Your task to perform on an android device: delete a single message in the gmail app Image 0: 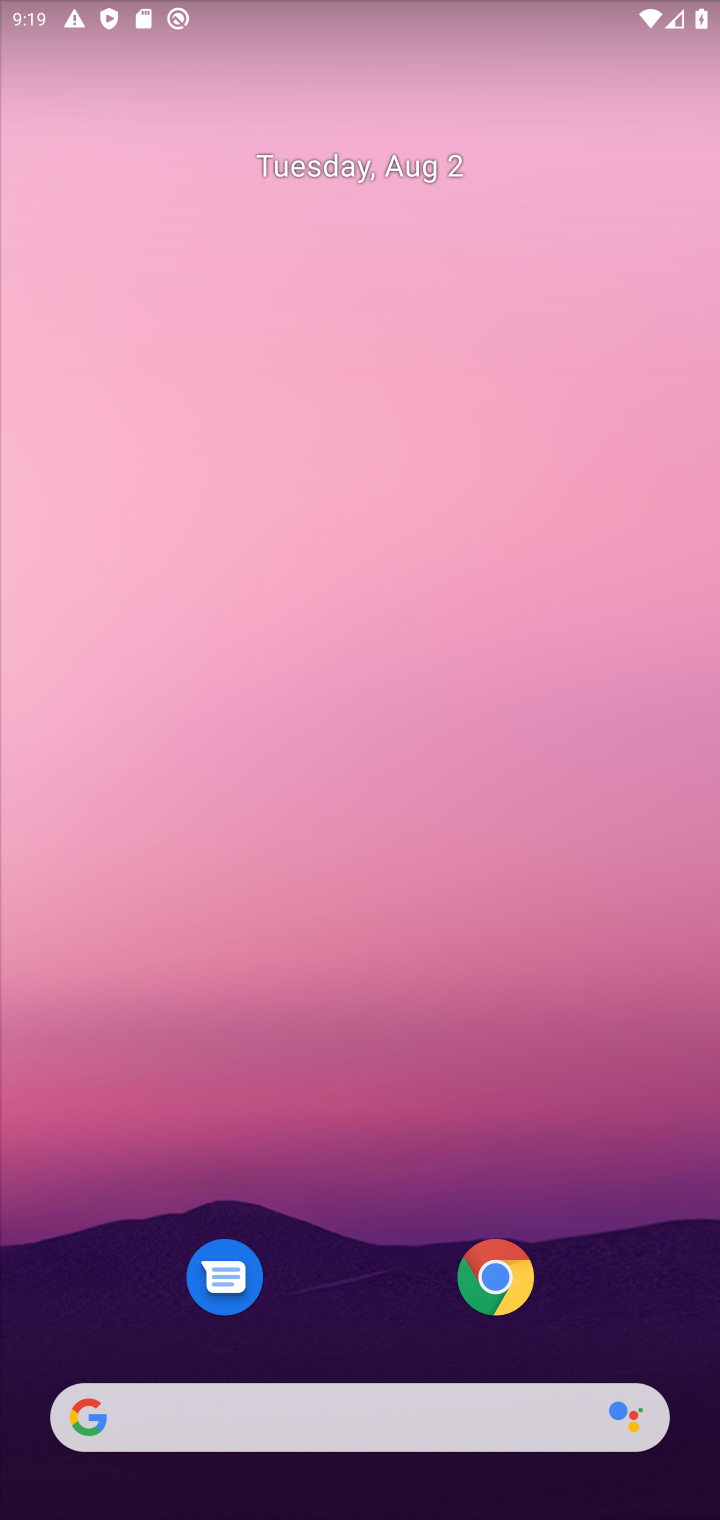
Step 0: drag from (509, 1072) to (465, 295)
Your task to perform on an android device: delete a single message in the gmail app Image 1: 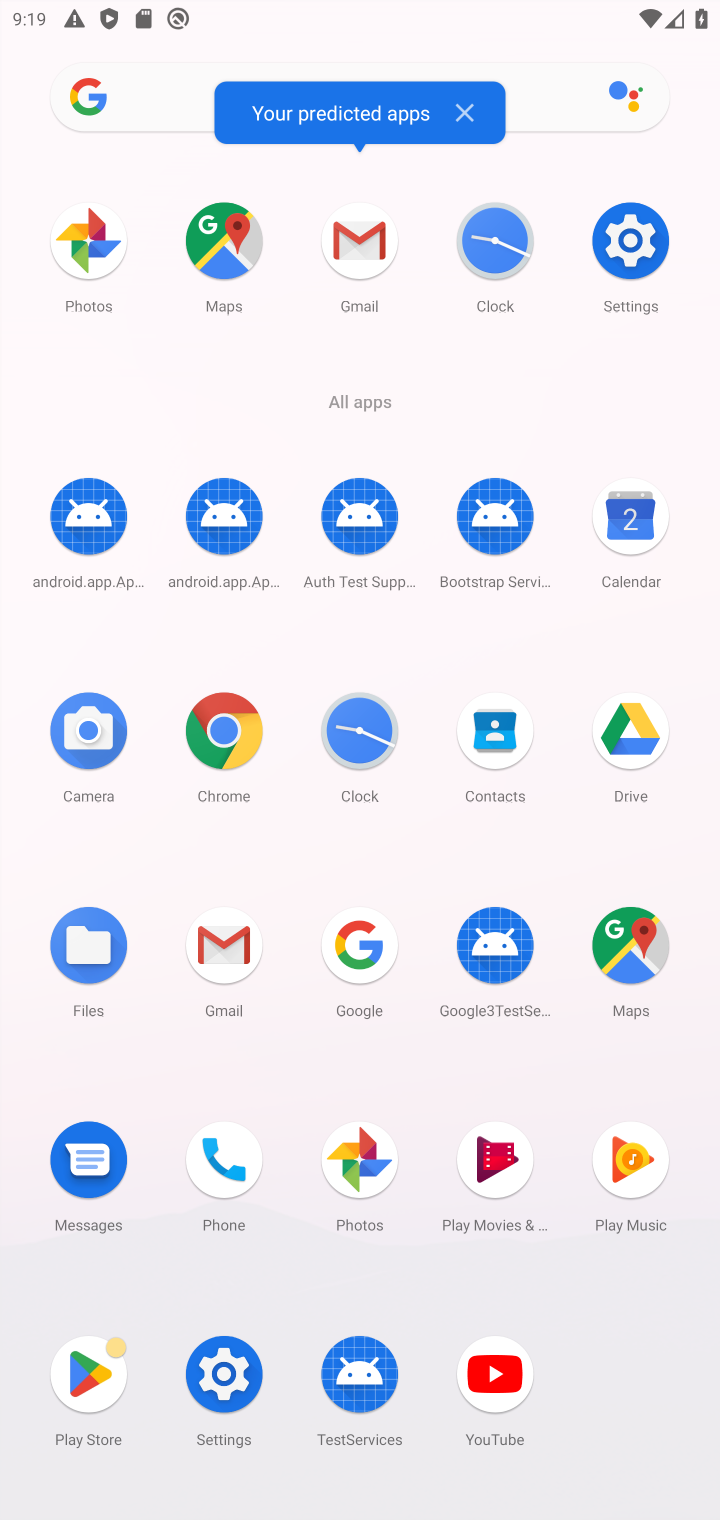
Step 1: click (205, 927)
Your task to perform on an android device: delete a single message in the gmail app Image 2: 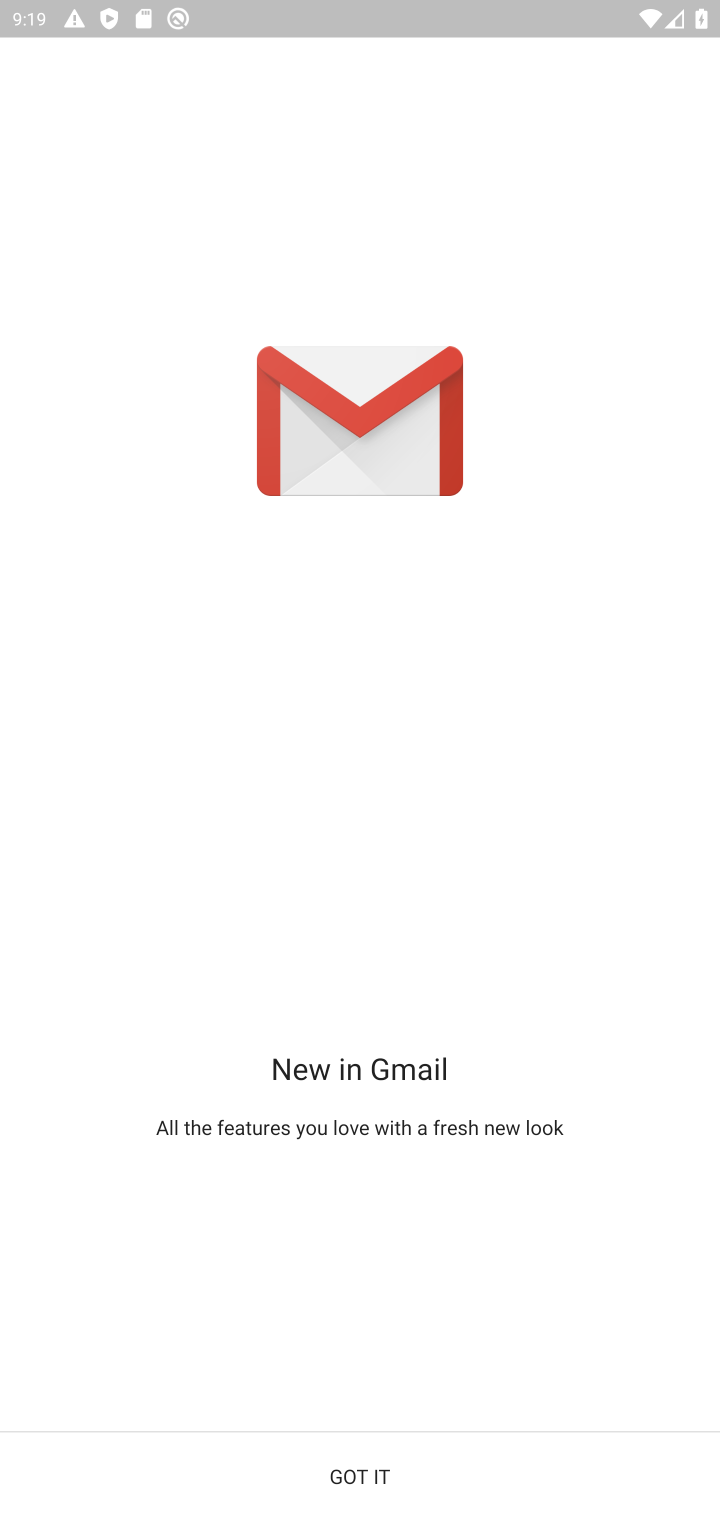
Step 2: click (384, 1464)
Your task to perform on an android device: delete a single message in the gmail app Image 3: 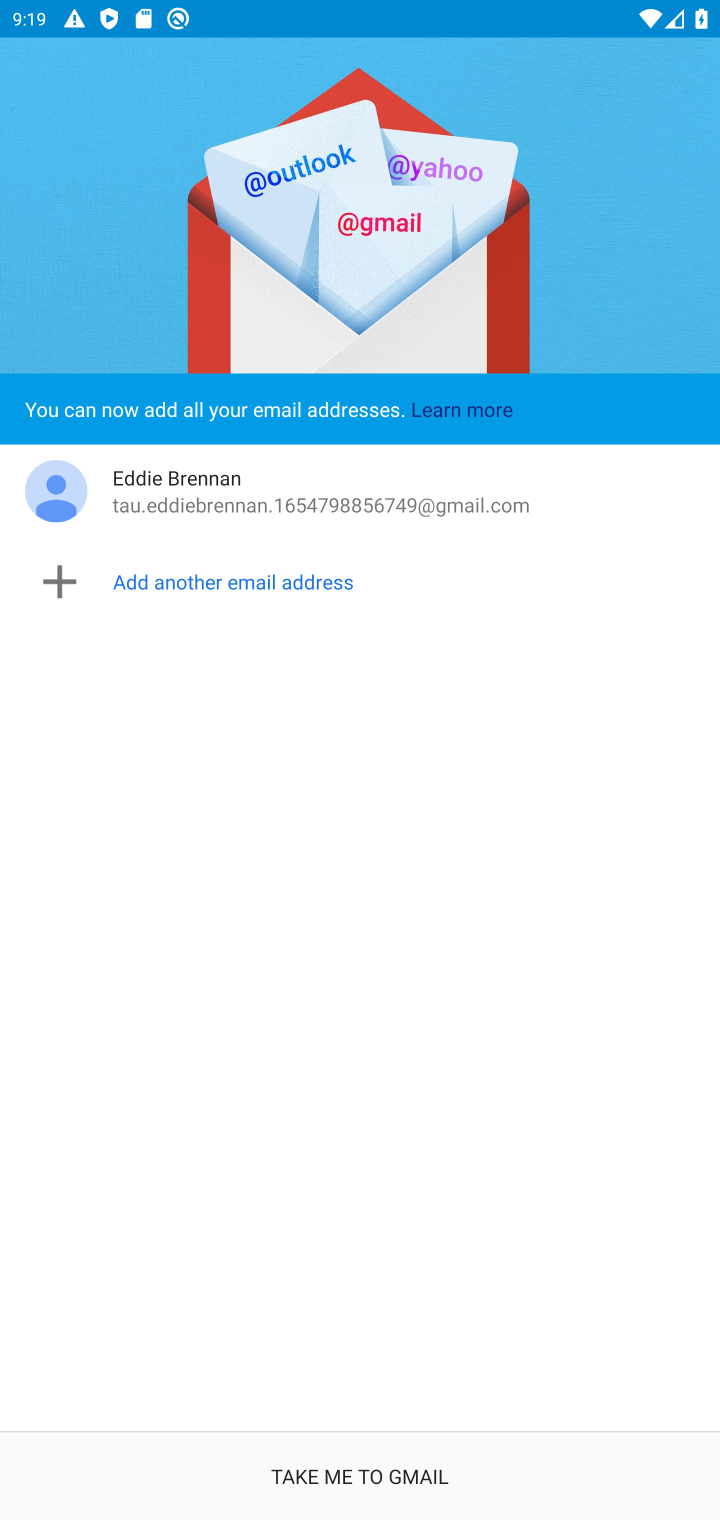
Step 3: click (348, 1477)
Your task to perform on an android device: delete a single message in the gmail app Image 4: 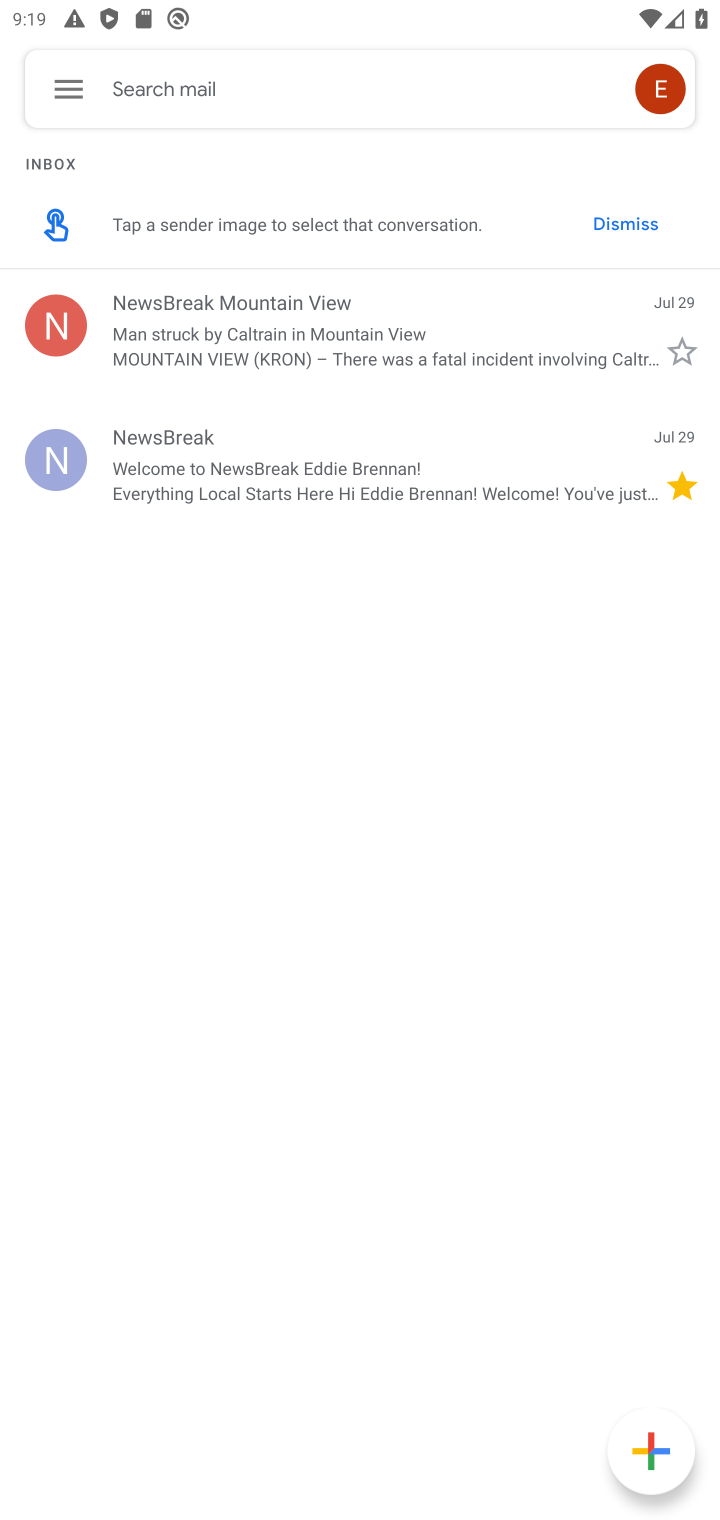
Step 4: click (55, 324)
Your task to perform on an android device: delete a single message in the gmail app Image 5: 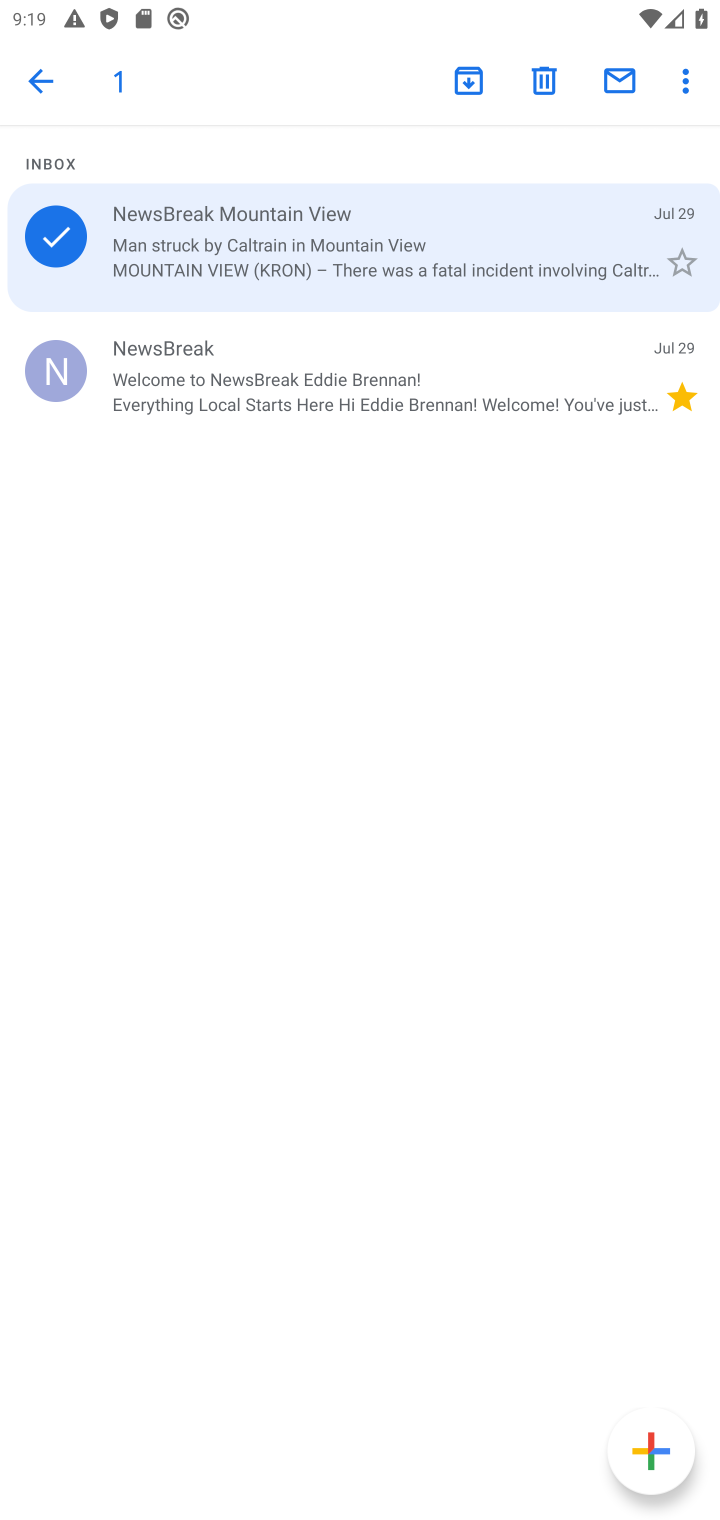
Step 5: click (541, 79)
Your task to perform on an android device: delete a single message in the gmail app Image 6: 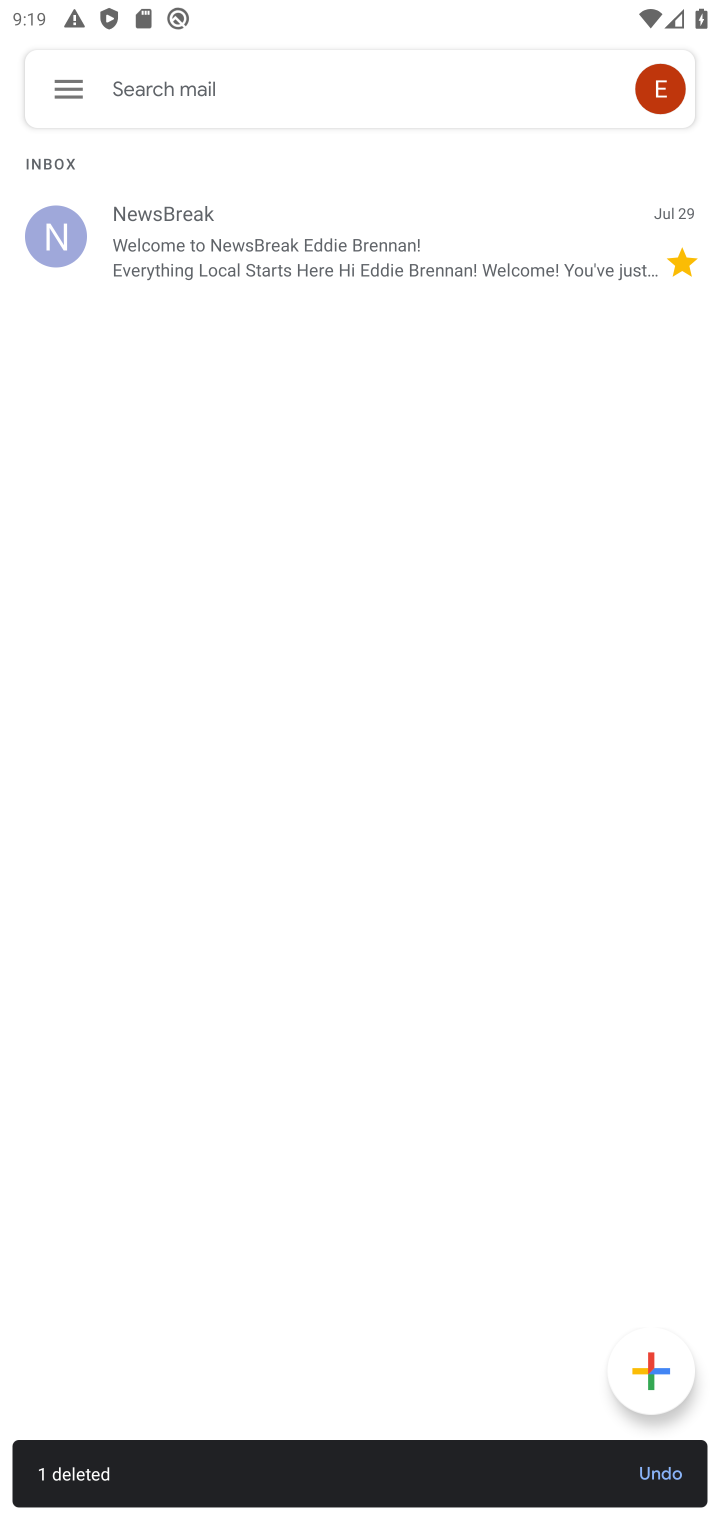
Step 6: task complete